Your task to perform on an android device: visit the assistant section in the google photos Image 0: 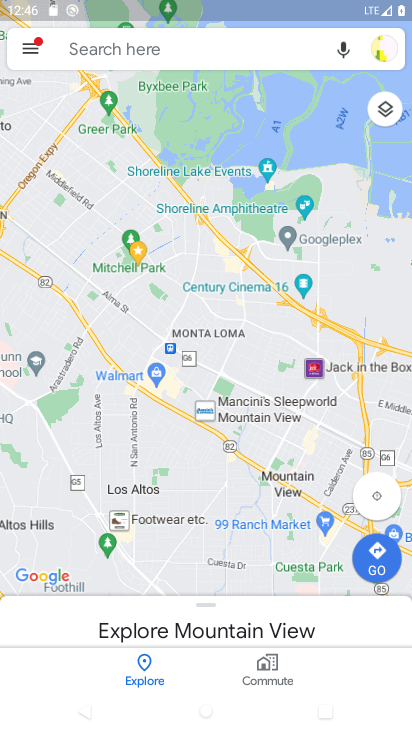
Step 0: press home button
Your task to perform on an android device: visit the assistant section in the google photos Image 1: 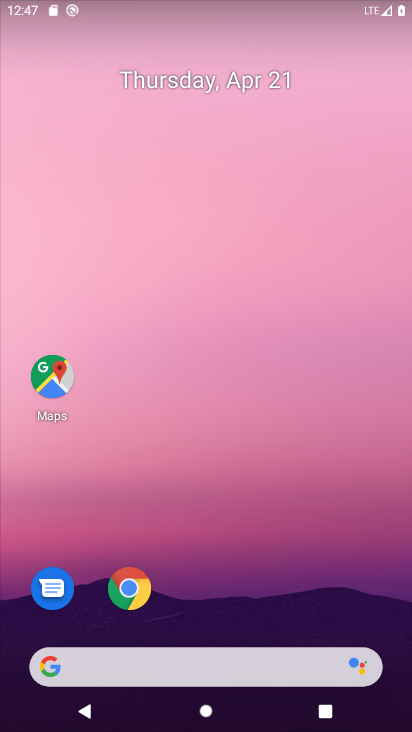
Step 1: drag from (217, 638) to (215, 49)
Your task to perform on an android device: visit the assistant section in the google photos Image 2: 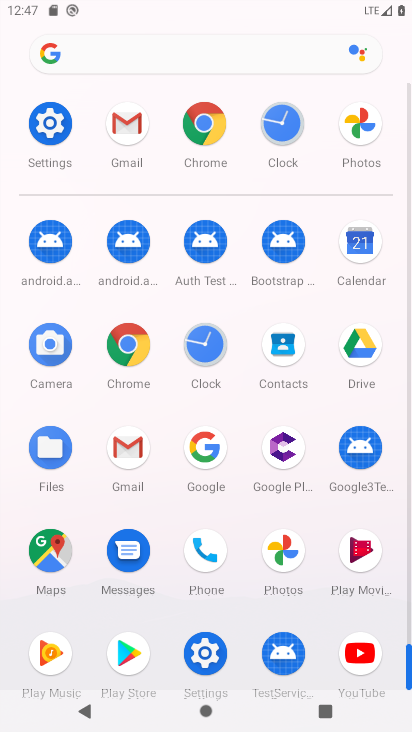
Step 2: click (358, 115)
Your task to perform on an android device: visit the assistant section in the google photos Image 3: 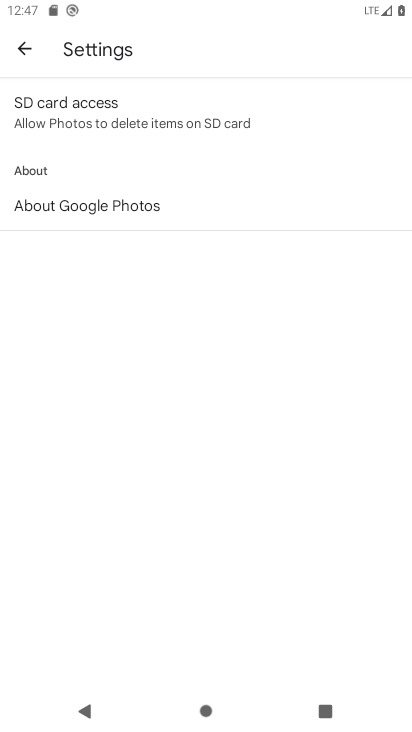
Step 3: click (27, 52)
Your task to perform on an android device: visit the assistant section in the google photos Image 4: 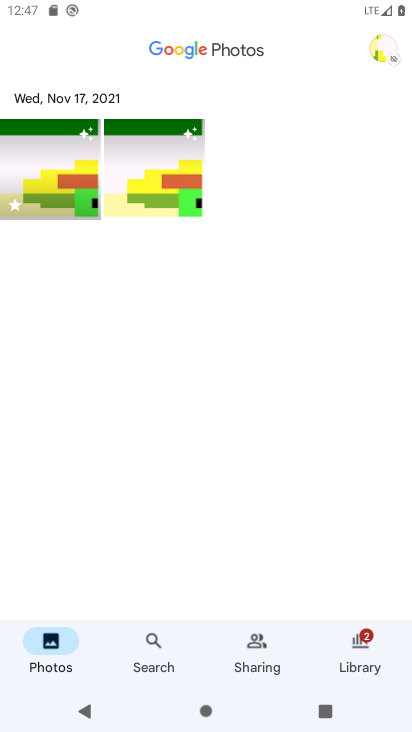
Step 4: click (149, 645)
Your task to perform on an android device: visit the assistant section in the google photos Image 5: 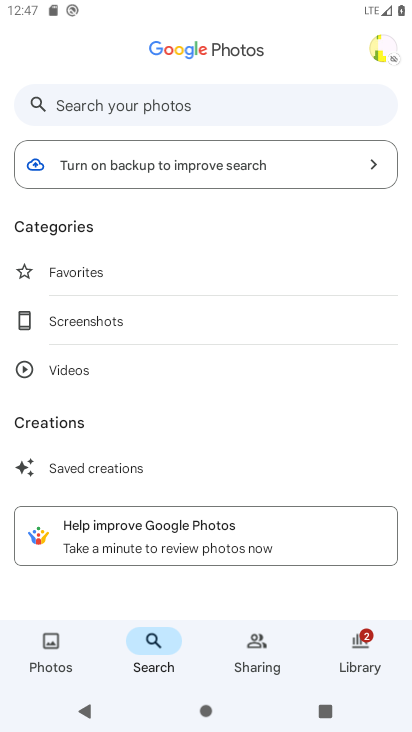
Step 5: click (115, 163)
Your task to perform on an android device: visit the assistant section in the google photos Image 6: 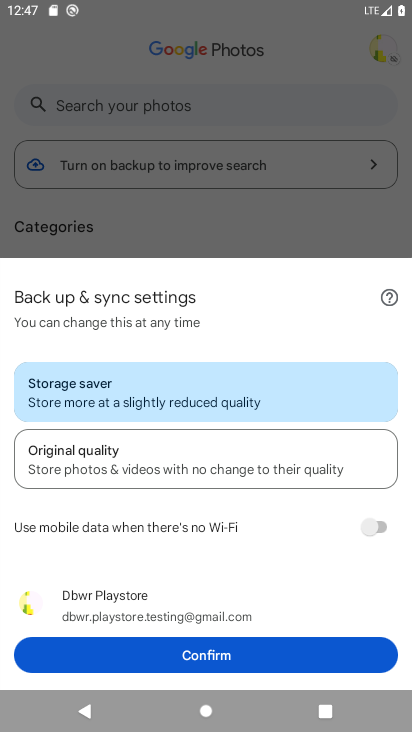
Step 6: click (112, 109)
Your task to perform on an android device: visit the assistant section in the google photos Image 7: 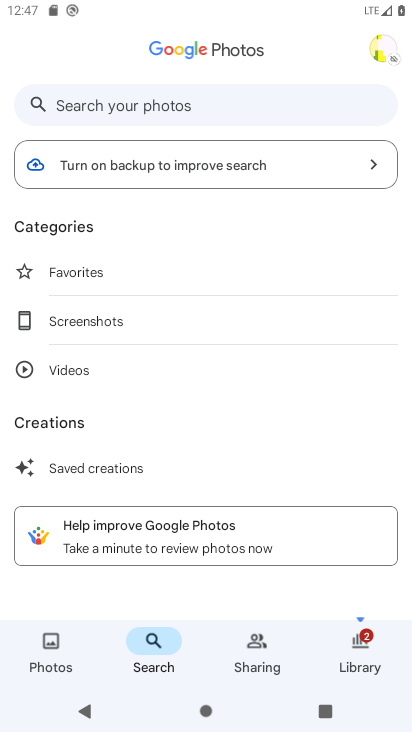
Step 7: click (140, 103)
Your task to perform on an android device: visit the assistant section in the google photos Image 8: 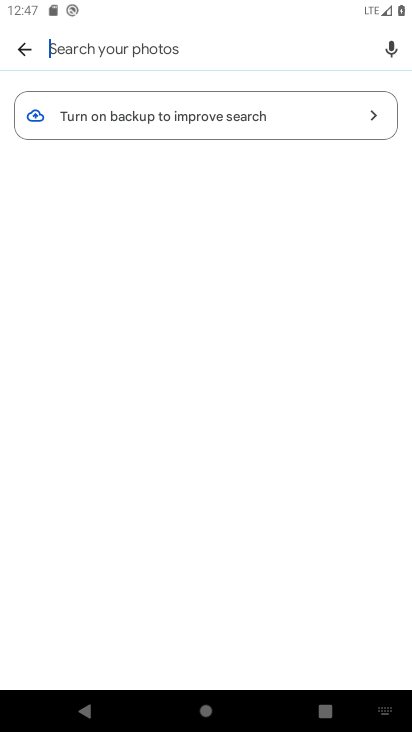
Step 8: type "assistant"
Your task to perform on an android device: visit the assistant section in the google photos Image 9: 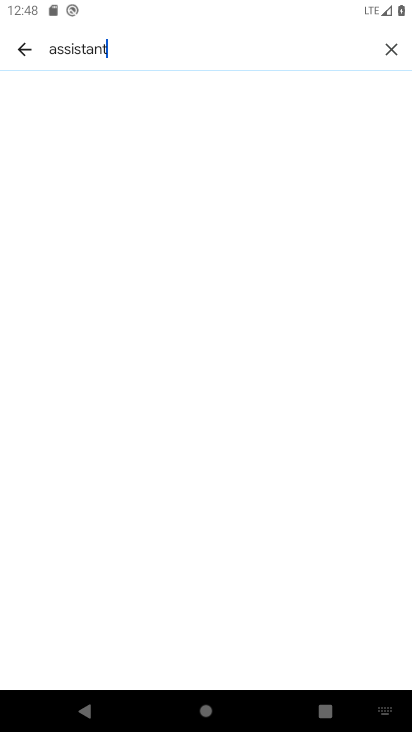
Step 9: click (388, 44)
Your task to perform on an android device: visit the assistant section in the google photos Image 10: 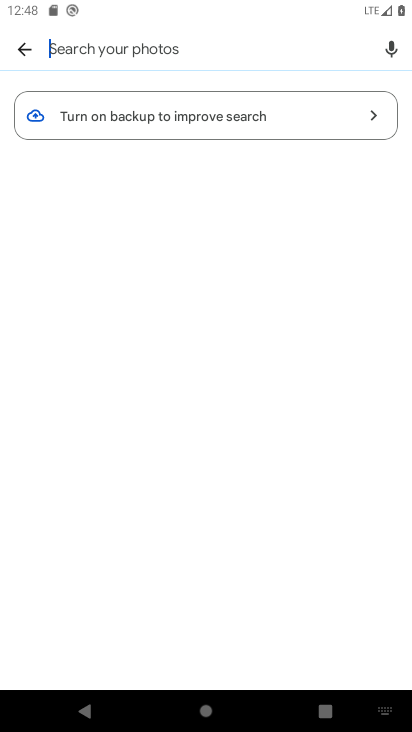
Step 10: click (105, 41)
Your task to perform on an android device: visit the assistant section in the google photos Image 11: 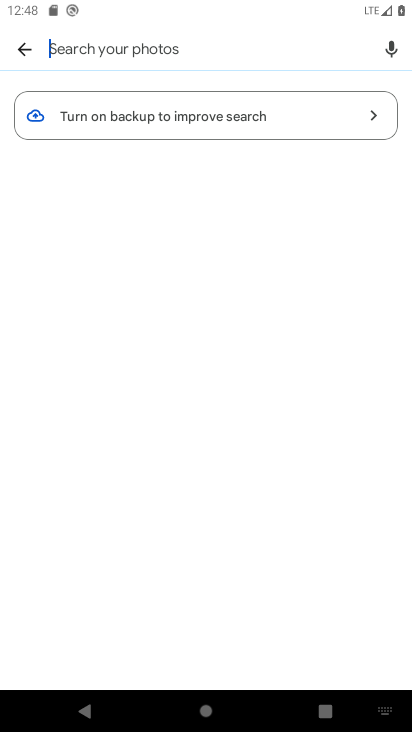
Step 11: type "assis"
Your task to perform on an android device: visit the assistant section in the google photos Image 12: 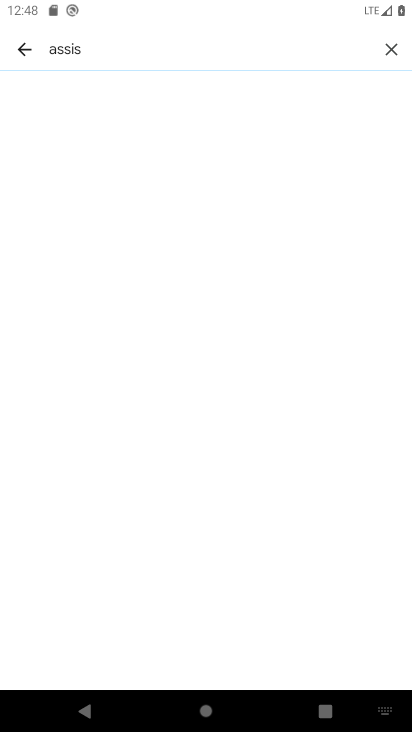
Step 12: task complete